Your task to perform on an android device: check the backup settings in the google photos Image 0: 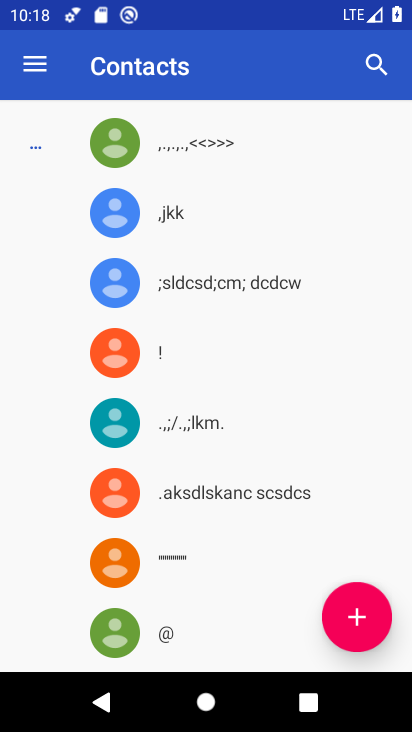
Step 0: press home button
Your task to perform on an android device: check the backup settings in the google photos Image 1: 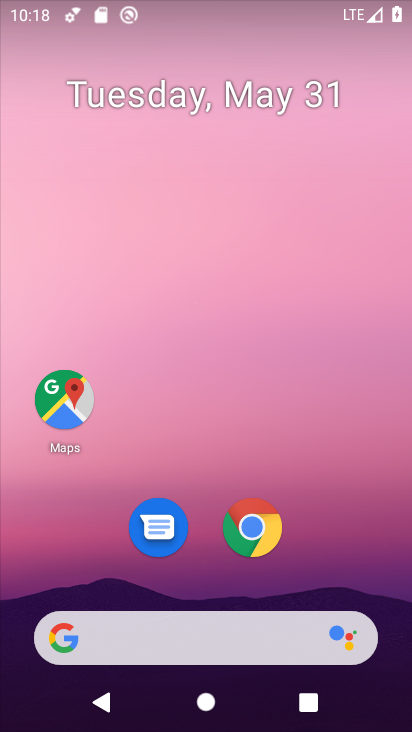
Step 1: drag from (354, 618) to (341, 1)
Your task to perform on an android device: check the backup settings in the google photos Image 2: 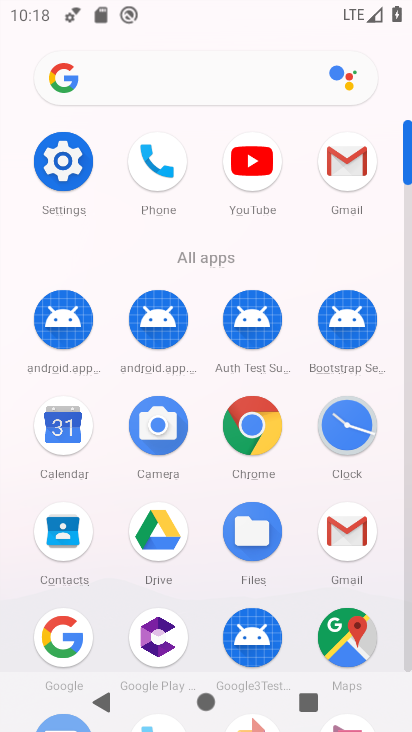
Step 2: click (411, 573)
Your task to perform on an android device: check the backup settings in the google photos Image 3: 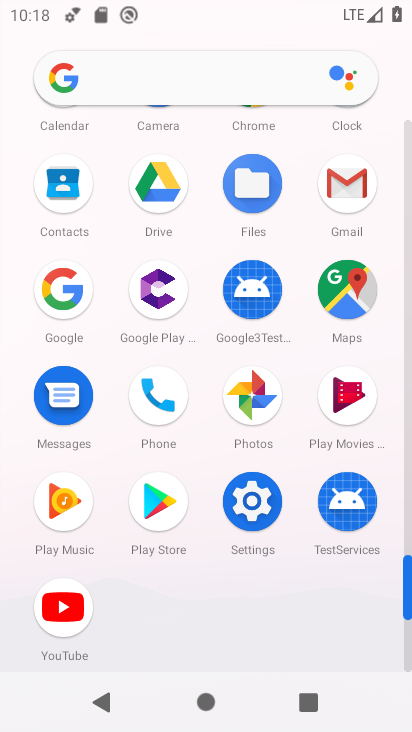
Step 3: click (255, 404)
Your task to perform on an android device: check the backup settings in the google photos Image 4: 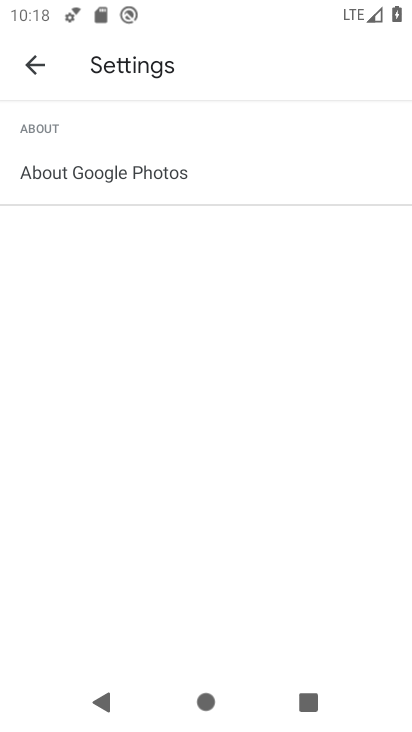
Step 4: click (29, 75)
Your task to perform on an android device: check the backup settings in the google photos Image 5: 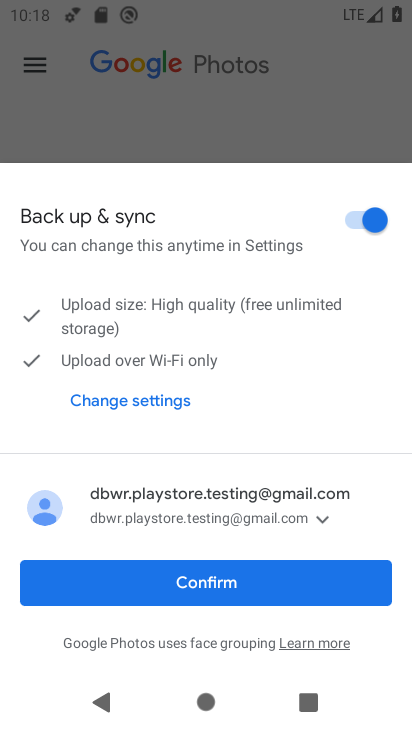
Step 5: click (224, 578)
Your task to perform on an android device: check the backup settings in the google photos Image 6: 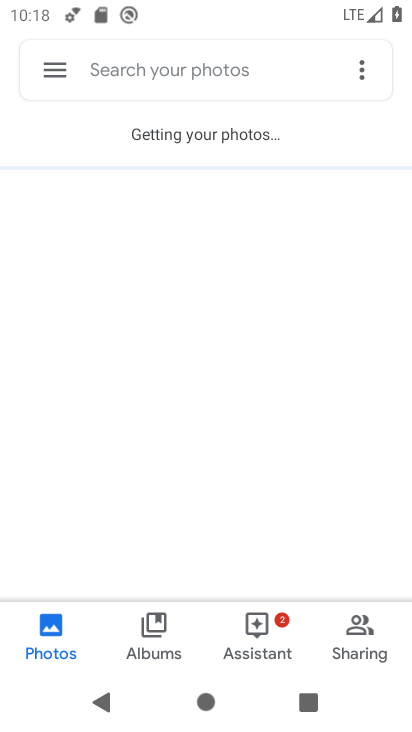
Step 6: click (52, 78)
Your task to perform on an android device: check the backup settings in the google photos Image 7: 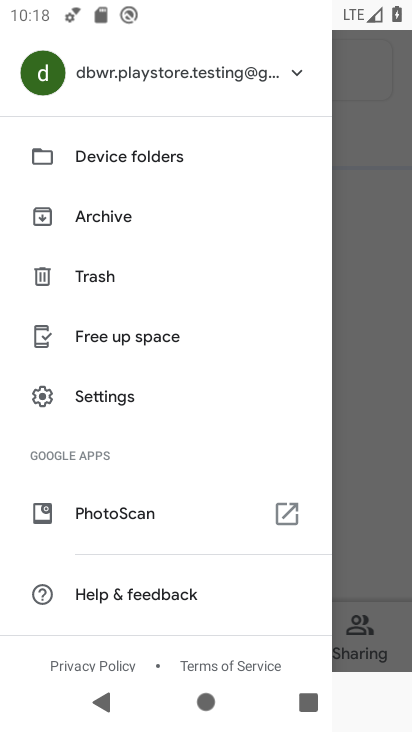
Step 7: click (86, 399)
Your task to perform on an android device: check the backup settings in the google photos Image 8: 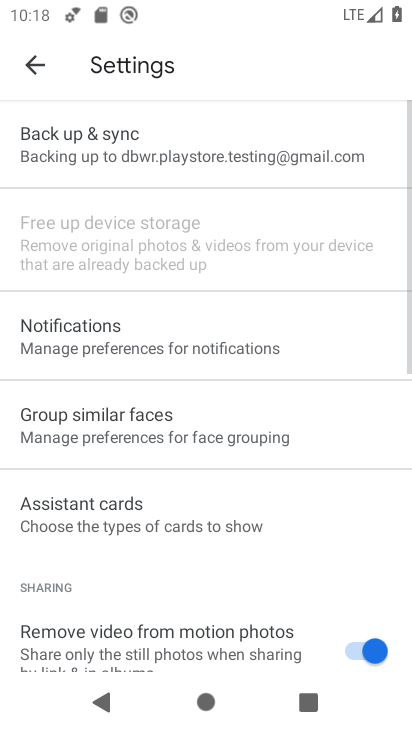
Step 8: click (90, 136)
Your task to perform on an android device: check the backup settings in the google photos Image 9: 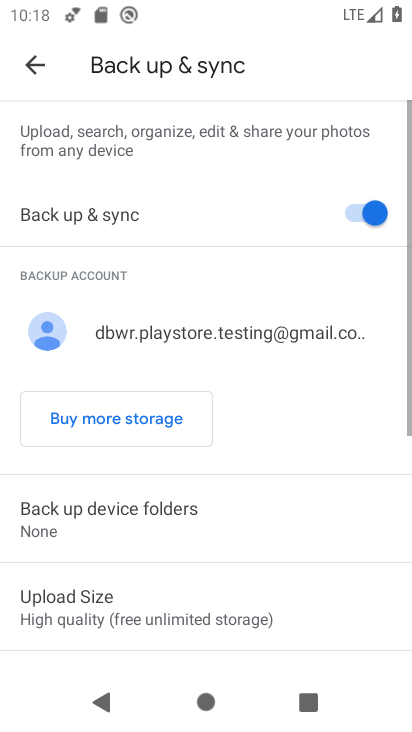
Step 9: task complete